Your task to perform on an android device: read, delete, or share a saved page in the chrome app Image 0: 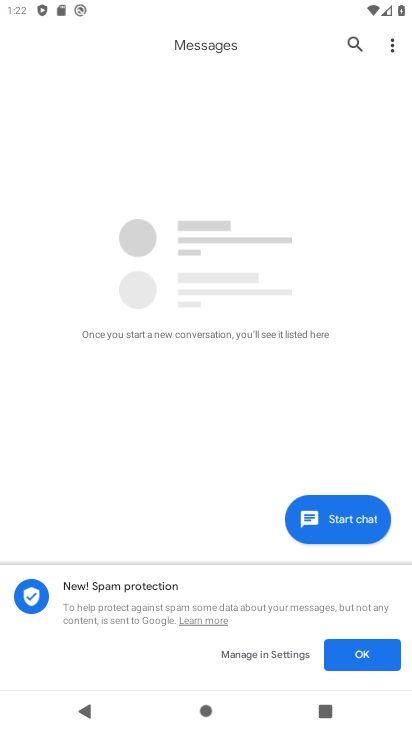
Step 0: press home button
Your task to perform on an android device: read, delete, or share a saved page in the chrome app Image 1: 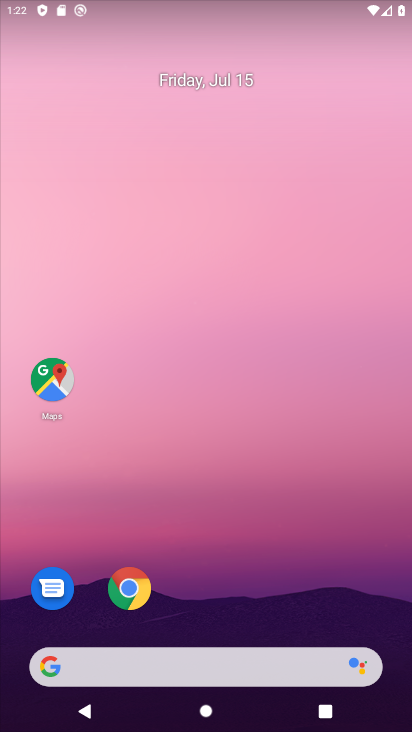
Step 1: click (128, 588)
Your task to perform on an android device: read, delete, or share a saved page in the chrome app Image 2: 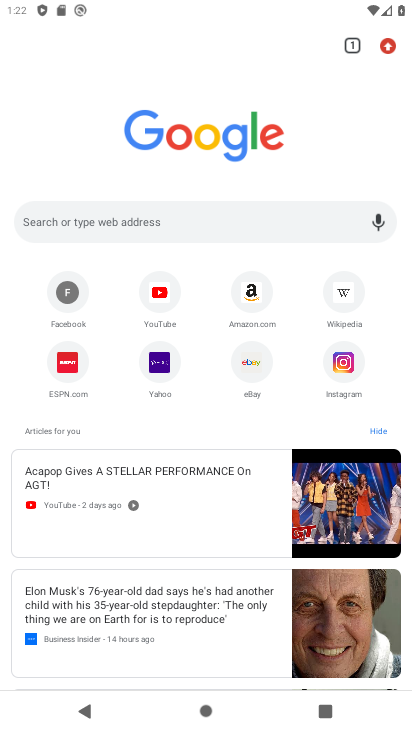
Step 2: click (386, 46)
Your task to perform on an android device: read, delete, or share a saved page in the chrome app Image 3: 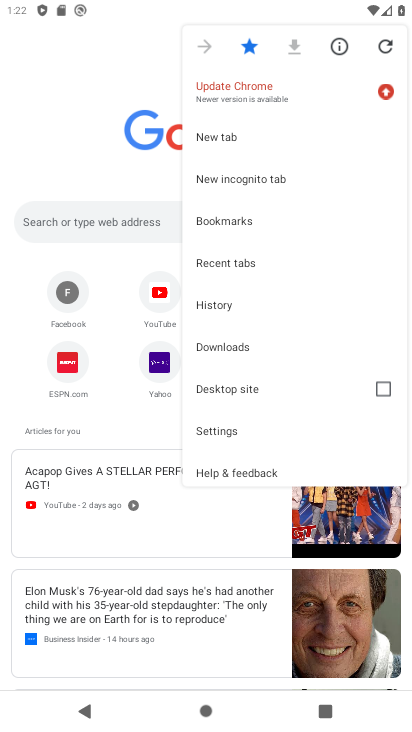
Step 3: click (217, 346)
Your task to perform on an android device: read, delete, or share a saved page in the chrome app Image 4: 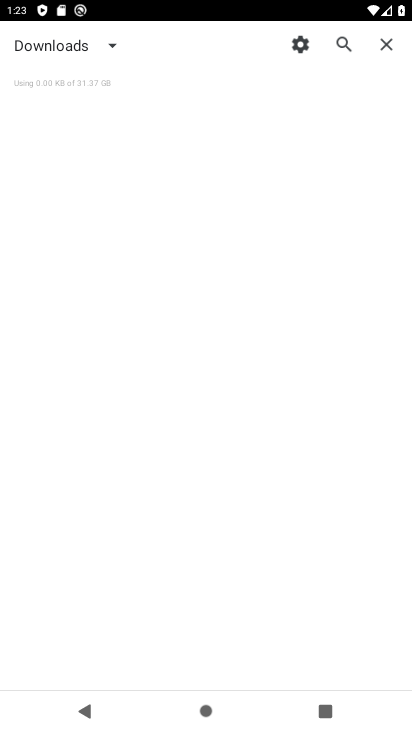
Step 4: click (109, 42)
Your task to perform on an android device: read, delete, or share a saved page in the chrome app Image 5: 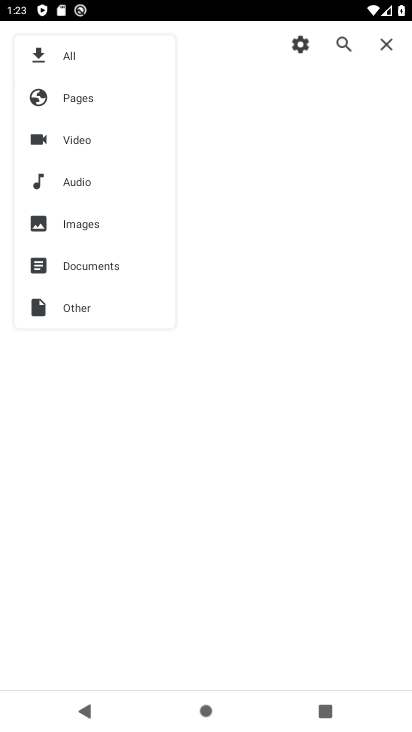
Step 5: click (74, 93)
Your task to perform on an android device: read, delete, or share a saved page in the chrome app Image 6: 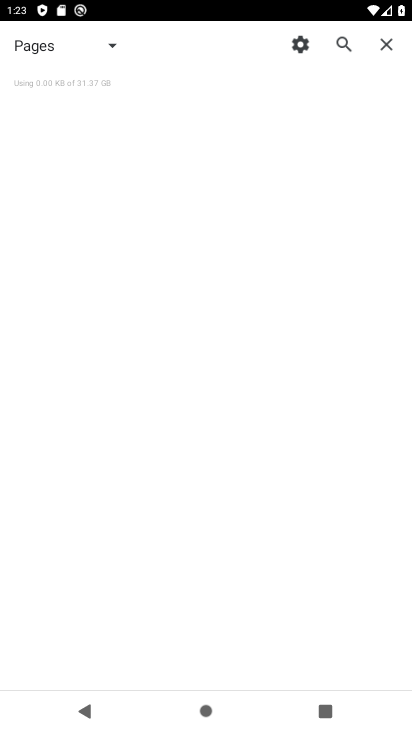
Step 6: click (115, 44)
Your task to perform on an android device: read, delete, or share a saved page in the chrome app Image 7: 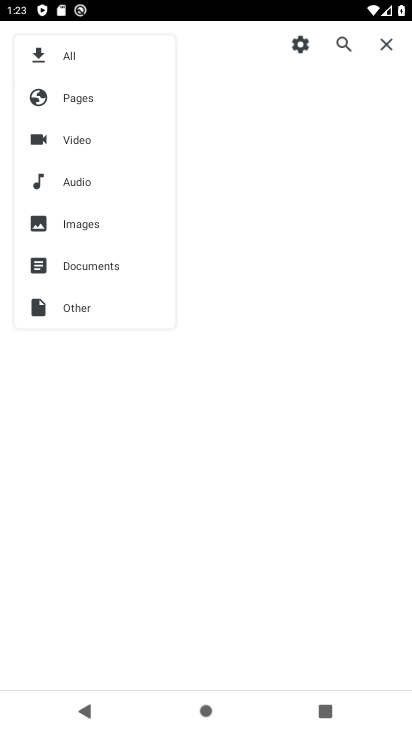
Step 7: click (83, 141)
Your task to perform on an android device: read, delete, or share a saved page in the chrome app Image 8: 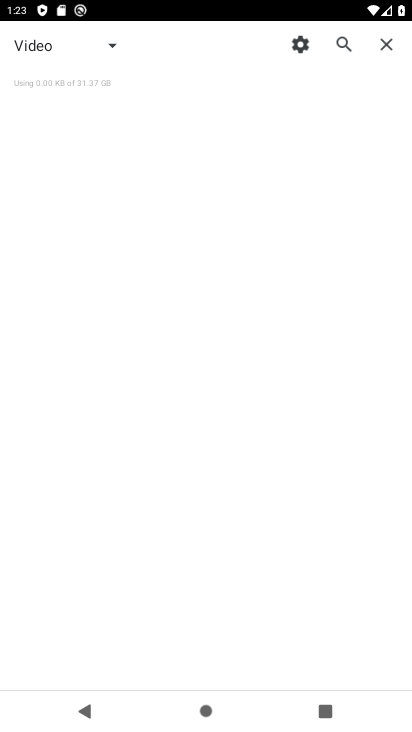
Step 8: click (98, 45)
Your task to perform on an android device: read, delete, or share a saved page in the chrome app Image 9: 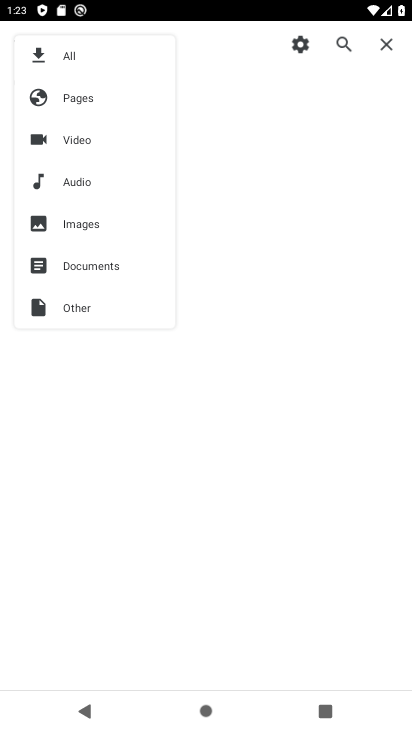
Step 9: click (69, 182)
Your task to perform on an android device: read, delete, or share a saved page in the chrome app Image 10: 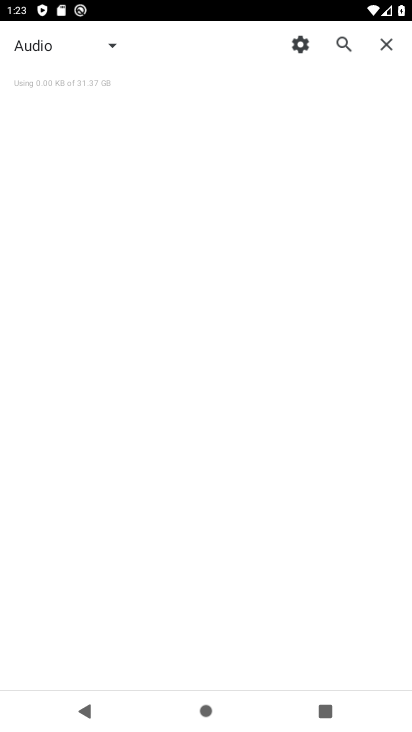
Step 10: click (115, 45)
Your task to perform on an android device: read, delete, or share a saved page in the chrome app Image 11: 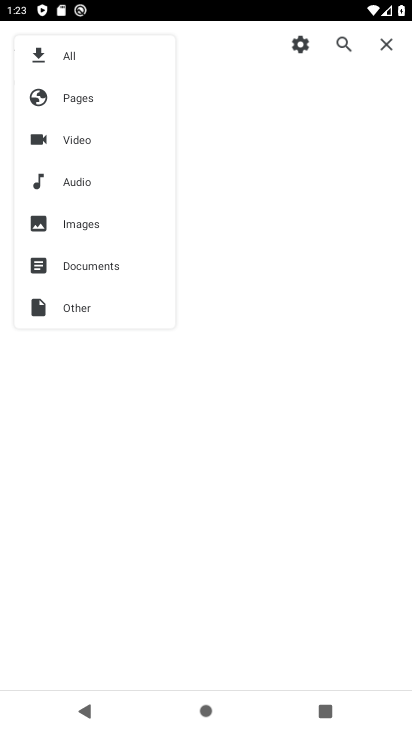
Step 11: click (110, 263)
Your task to perform on an android device: read, delete, or share a saved page in the chrome app Image 12: 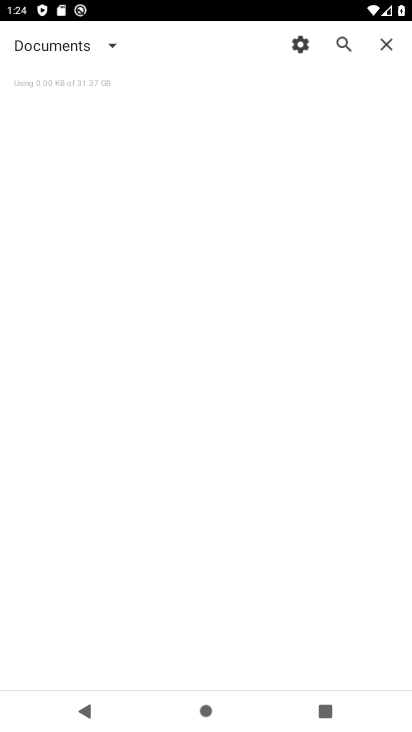
Step 12: task complete